Your task to perform on an android device: Open the calendar and show me this week's events? Image 0: 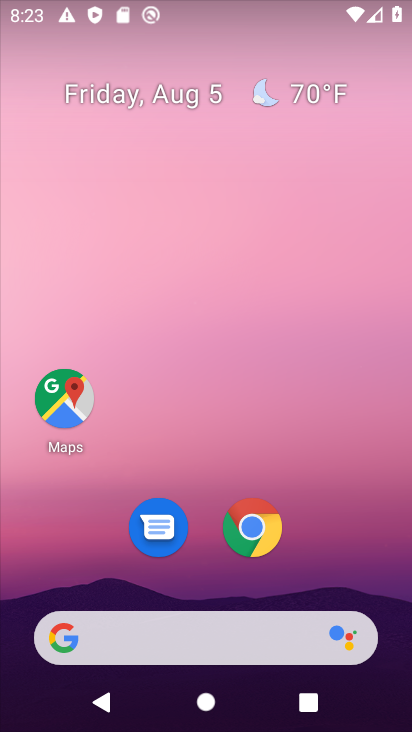
Step 0: drag from (173, 646) to (163, 81)
Your task to perform on an android device: Open the calendar and show me this week's events? Image 1: 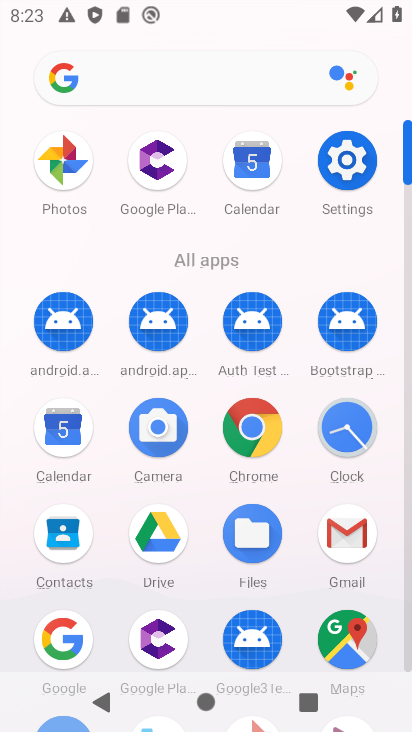
Step 1: click (54, 431)
Your task to perform on an android device: Open the calendar and show me this week's events? Image 2: 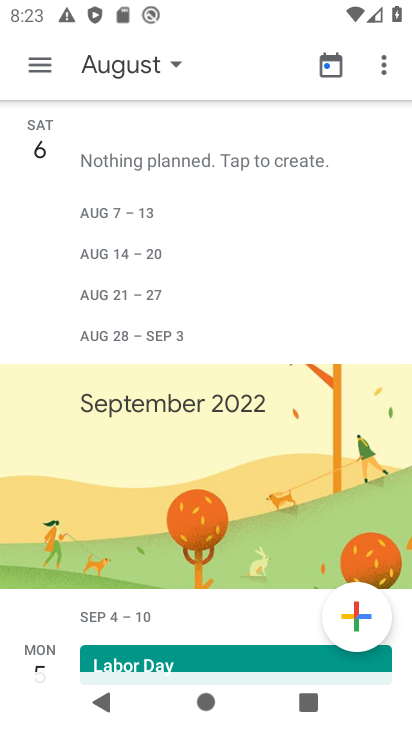
Step 2: click (50, 72)
Your task to perform on an android device: Open the calendar and show me this week's events? Image 3: 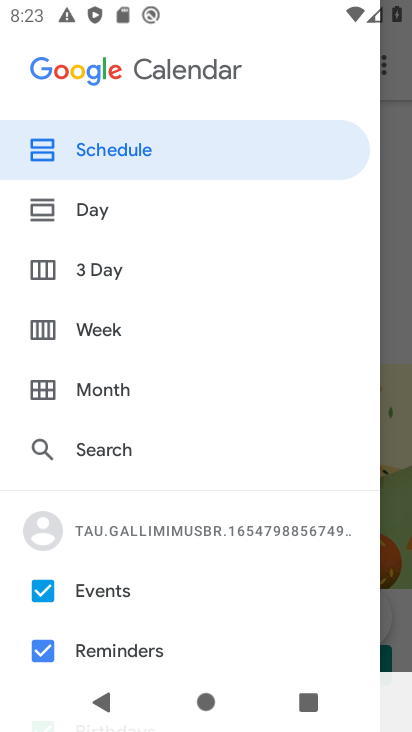
Step 3: click (90, 320)
Your task to perform on an android device: Open the calendar and show me this week's events? Image 4: 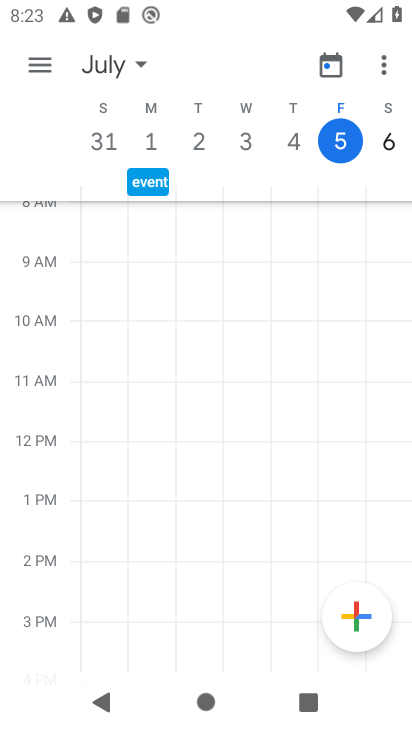
Step 4: task complete